Your task to perform on an android device: Open Android settings Image 0: 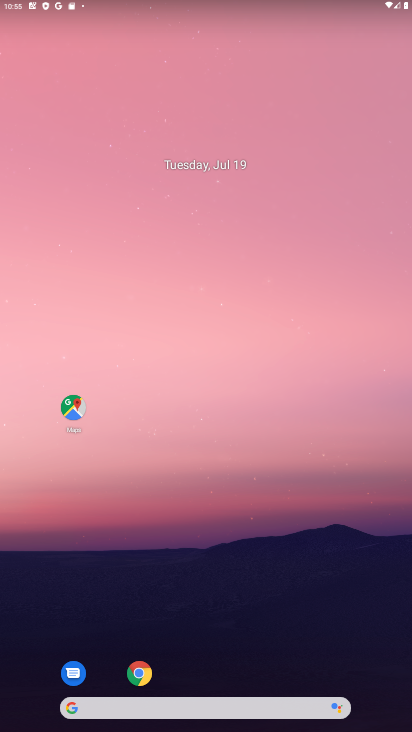
Step 0: drag from (391, 682) to (327, 144)
Your task to perform on an android device: Open Android settings Image 1: 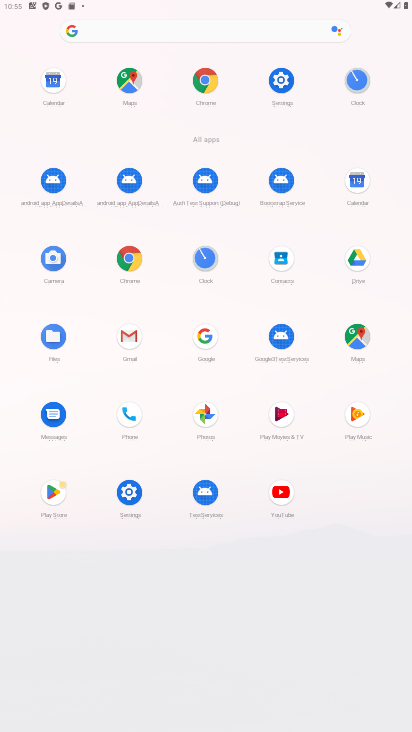
Step 1: click (130, 495)
Your task to perform on an android device: Open Android settings Image 2: 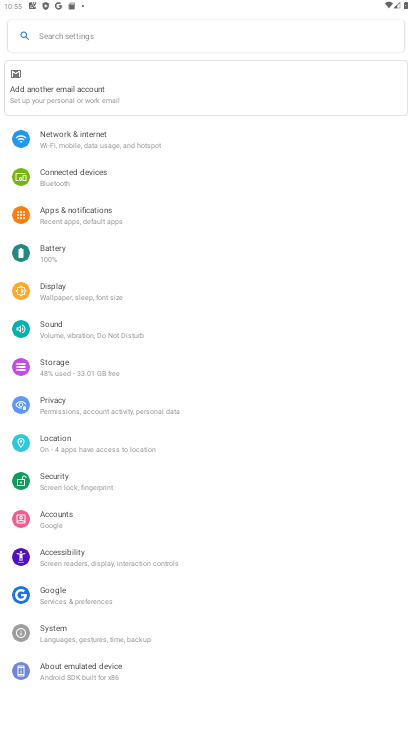
Step 2: click (77, 663)
Your task to perform on an android device: Open Android settings Image 3: 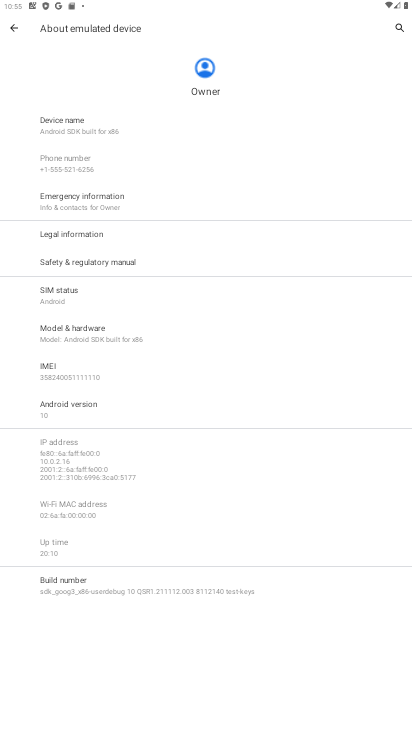
Step 3: task complete